Your task to perform on an android device: Check the news Image 0: 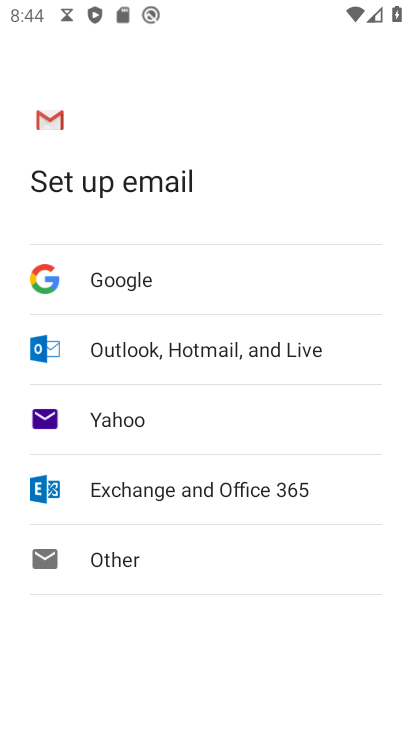
Step 0: press home button
Your task to perform on an android device: Check the news Image 1: 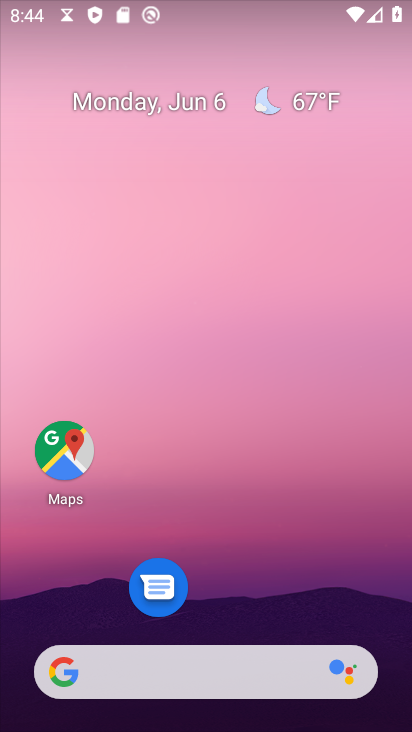
Step 1: drag from (232, 619) to (233, 197)
Your task to perform on an android device: Check the news Image 2: 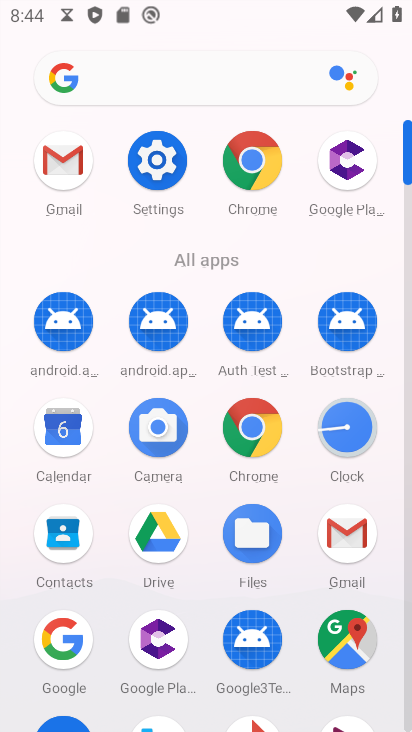
Step 2: click (162, 79)
Your task to perform on an android device: Check the news Image 3: 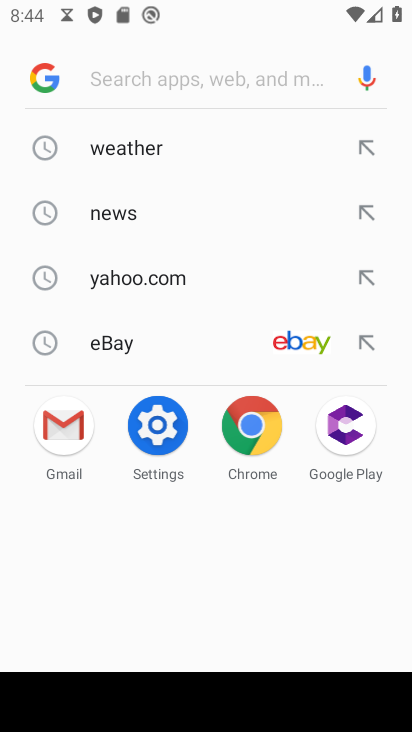
Step 3: type "news"
Your task to perform on an android device: Check the news Image 4: 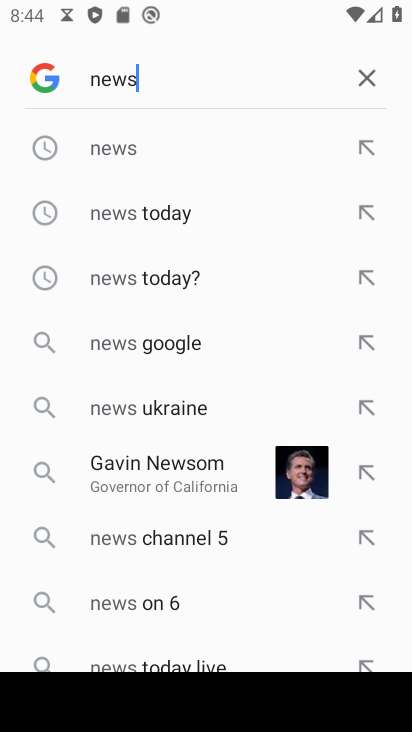
Step 4: click (158, 155)
Your task to perform on an android device: Check the news Image 5: 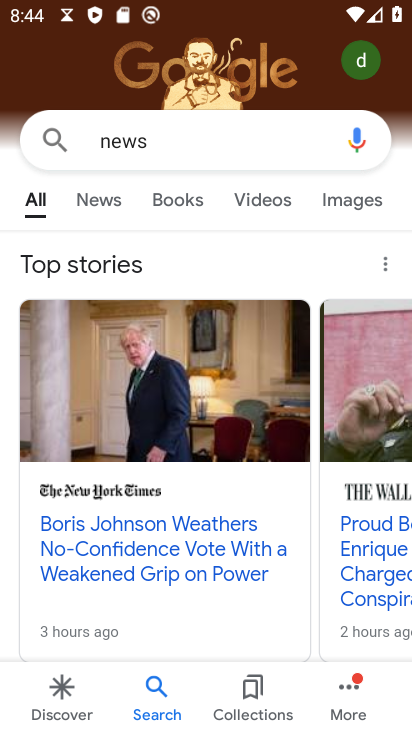
Step 5: task complete